Your task to perform on an android device: Open the Play Movies app and select the watchlist tab. Image 0: 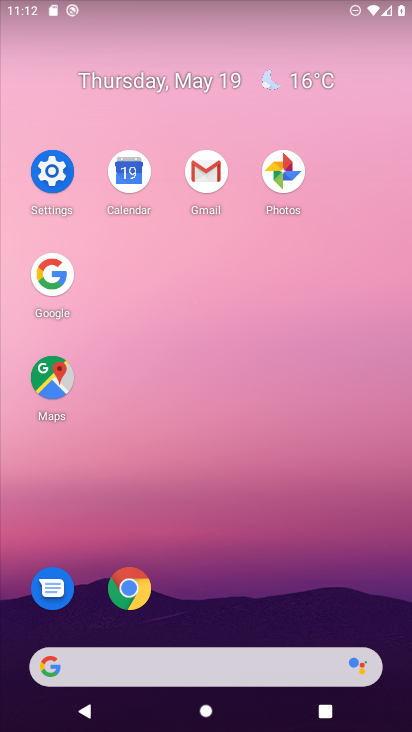
Step 0: drag from (289, 606) to (187, 179)
Your task to perform on an android device: Open the Play Movies app and select the watchlist tab. Image 1: 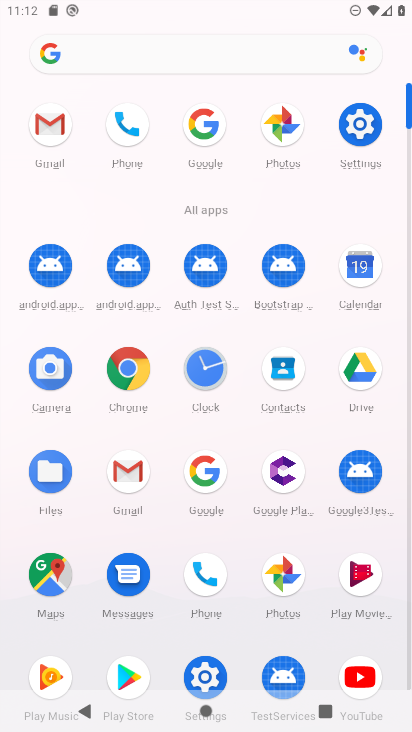
Step 1: click (353, 585)
Your task to perform on an android device: Open the Play Movies app and select the watchlist tab. Image 2: 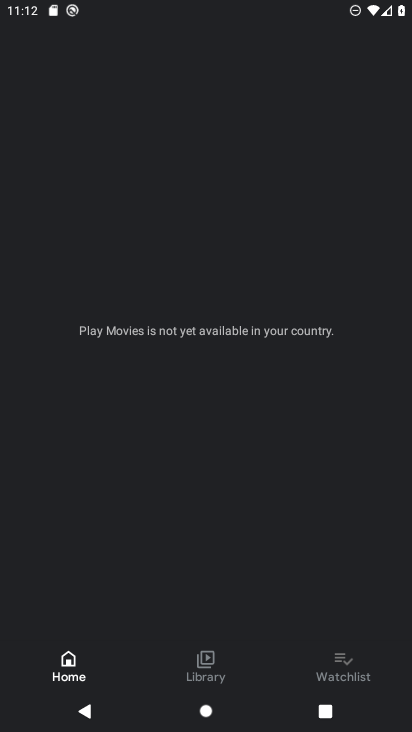
Step 2: click (371, 652)
Your task to perform on an android device: Open the Play Movies app and select the watchlist tab. Image 3: 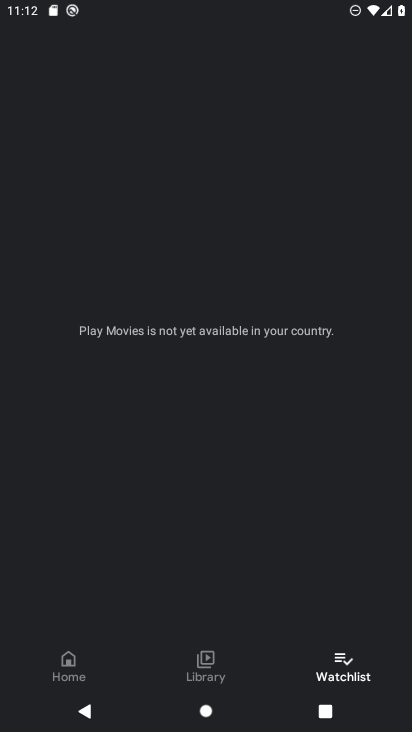
Step 3: task complete